Your task to perform on an android device: Open internet settings Image 0: 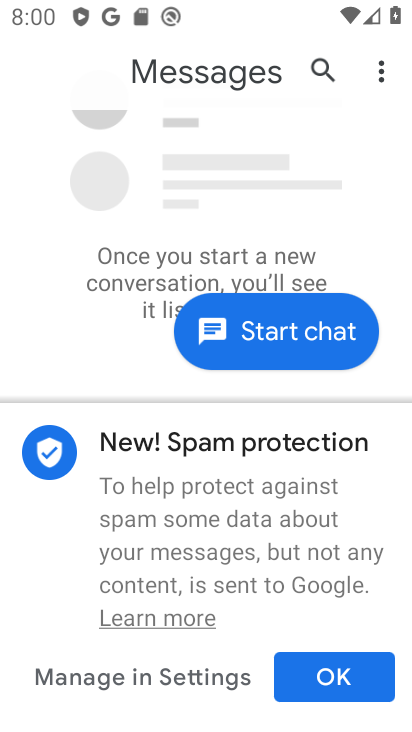
Step 0: press home button
Your task to perform on an android device: Open internet settings Image 1: 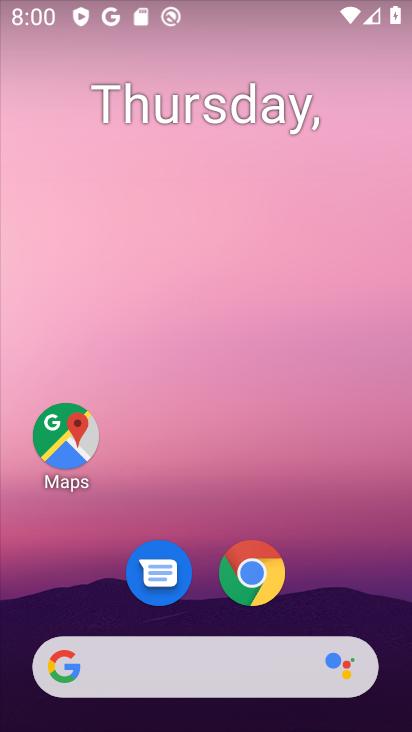
Step 1: drag from (375, 602) to (339, 181)
Your task to perform on an android device: Open internet settings Image 2: 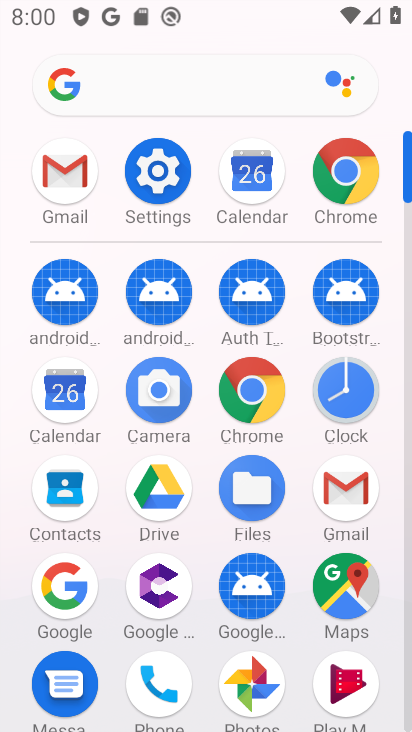
Step 2: click (164, 200)
Your task to perform on an android device: Open internet settings Image 3: 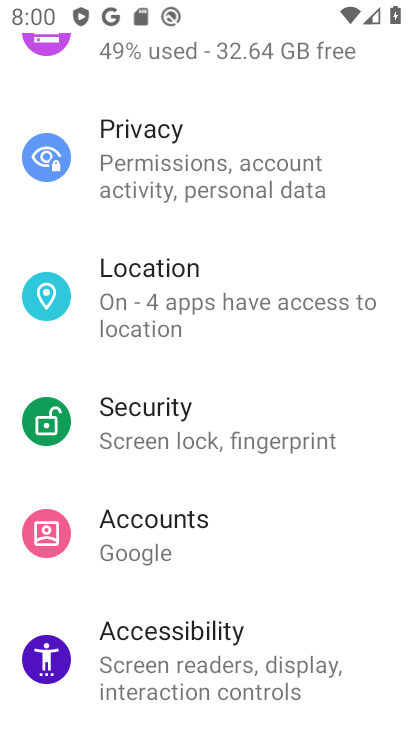
Step 3: drag from (269, 196) to (227, 671)
Your task to perform on an android device: Open internet settings Image 4: 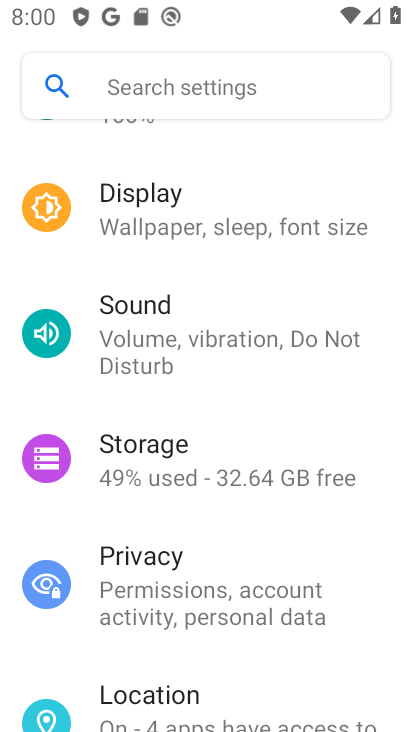
Step 4: drag from (219, 211) to (222, 670)
Your task to perform on an android device: Open internet settings Image 5: 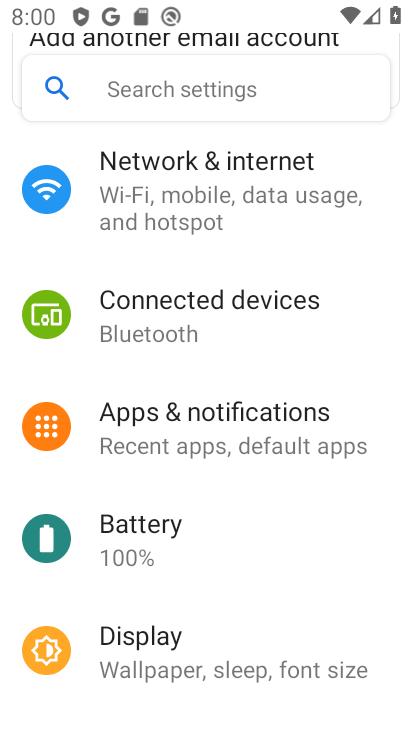
Step 5: drag from (267, 248) to (259, 674)
Your task to perform on an android device: Open internet settings Image 6: 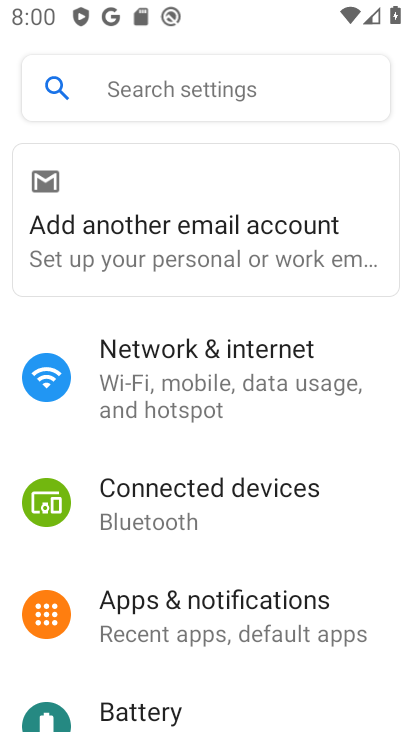
Step 6: click (264, 381)
Your task to perform on an android device: Open internet settings Image 7: 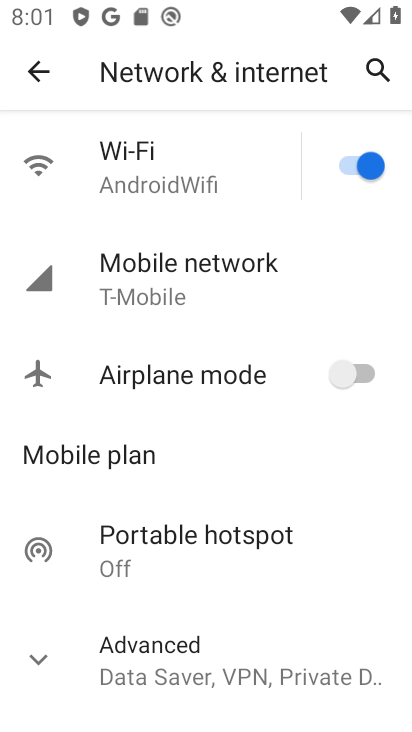
Step 7: task complete